Your task to perform on an android device: Open my contact list Image 0: 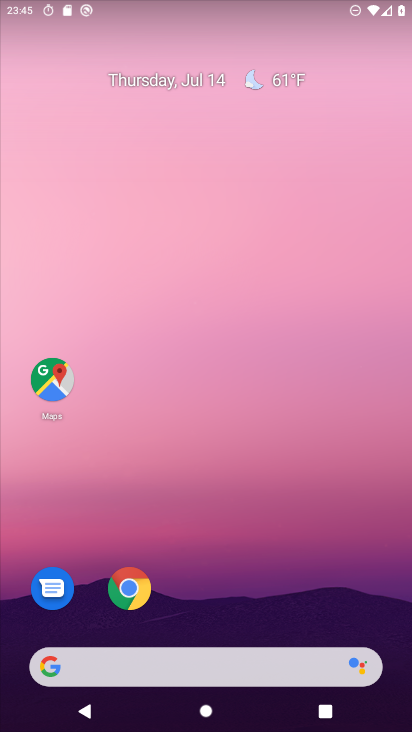
Step 0: drag from (236, 598) to (408, 434)
Your task to perform on an android device: Open my contact list Image 1: 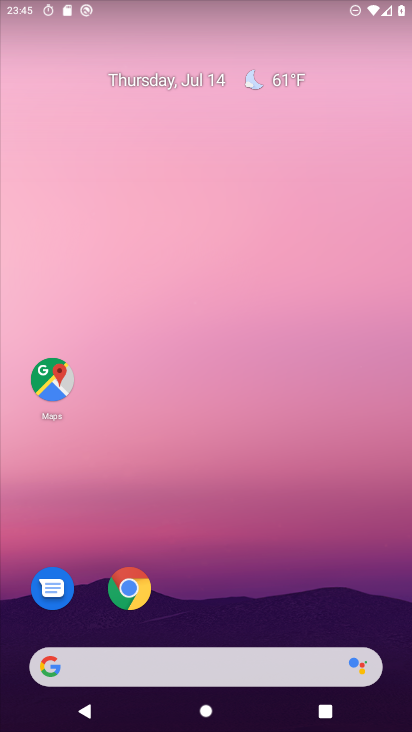
Step 1: drag from (204, 637) to (208, 3)
Your task to perform on an android device: Open my contact list Image 2: 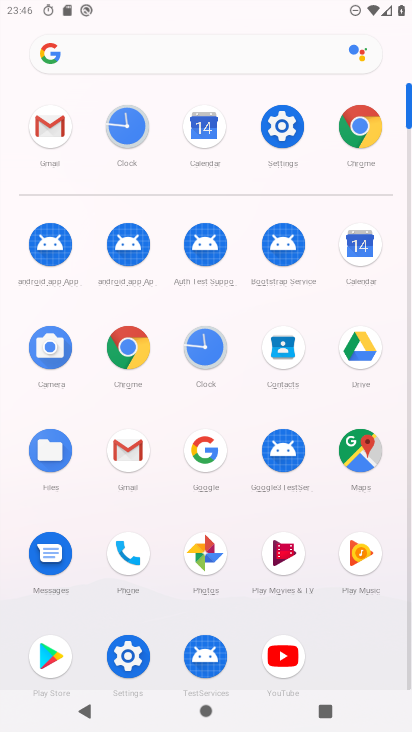
Step 2: click (358, 266)
Your task to perform on an android device: Open my contact list Image 3: 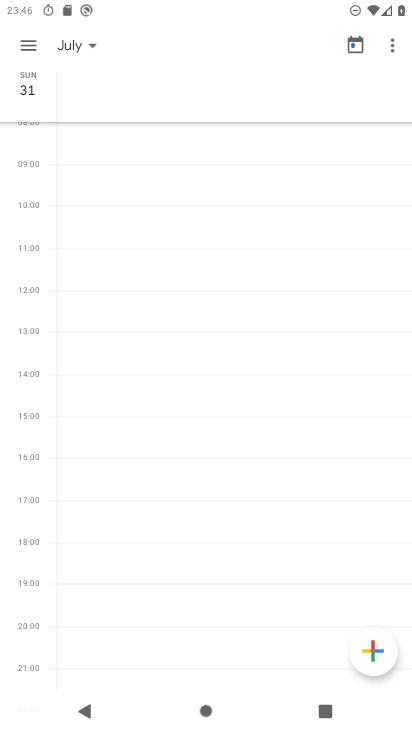
Step 3: press home button
Your task to perform on an android device: Open my contact list Image 4: 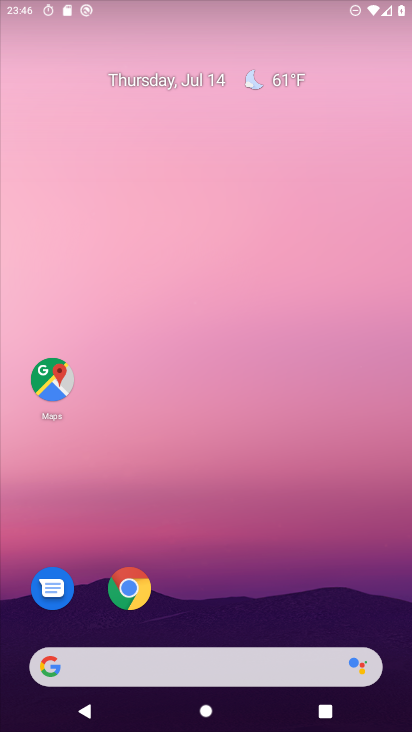
Step 4: drag from (194, 595) to (269, 19)
Your task to perform on an android device: Open my contact list Image 5: 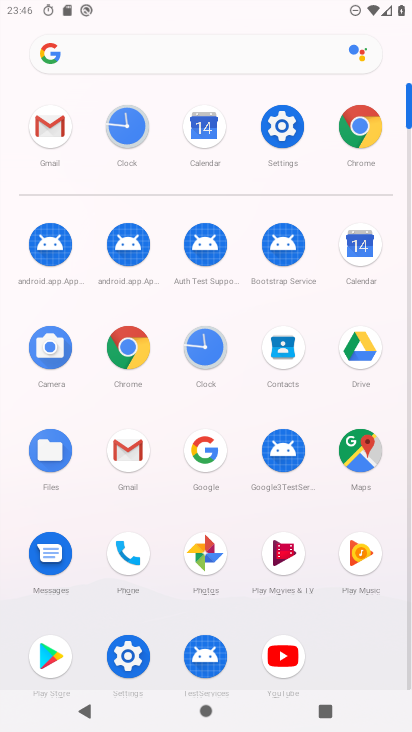
Step 5: click (286, 371)
Your task to perform on an android device: Open my contact list Image 6: 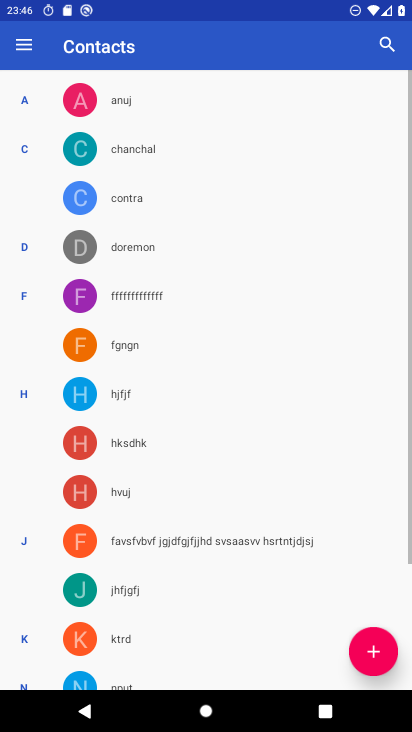
Step 6: task complete